Your task to perform on an android device: toggle pop-ups in chrome Image 0: 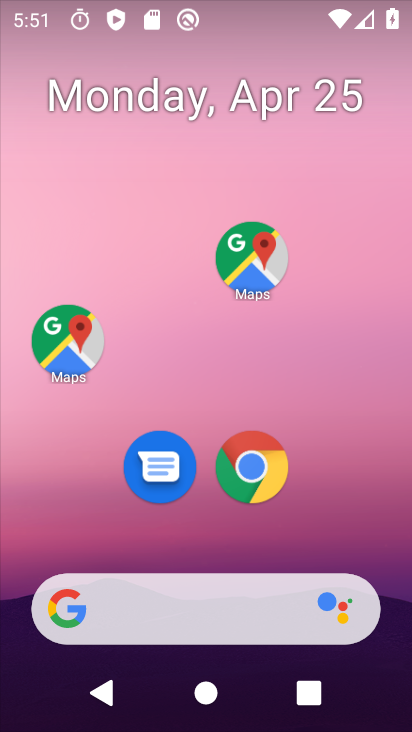
Step 0: drag from (328, 157) to (329, 5)
Your task to perform on an android device: toggle pop-ups in chrome Image 1: 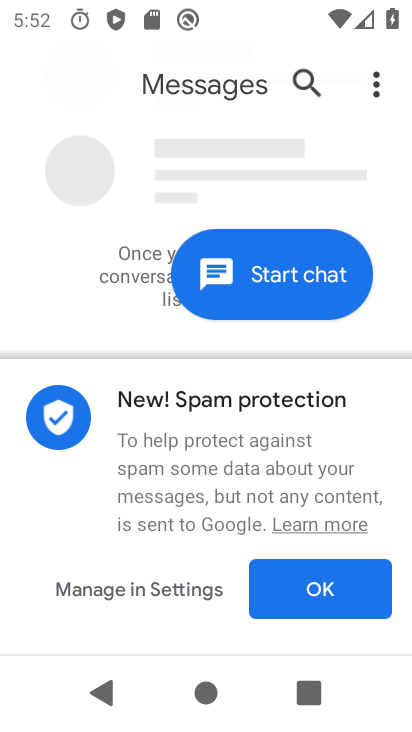
Step 1: press home button
Your task to perform on an android device: toggle pop-ups in chrome Image 2: 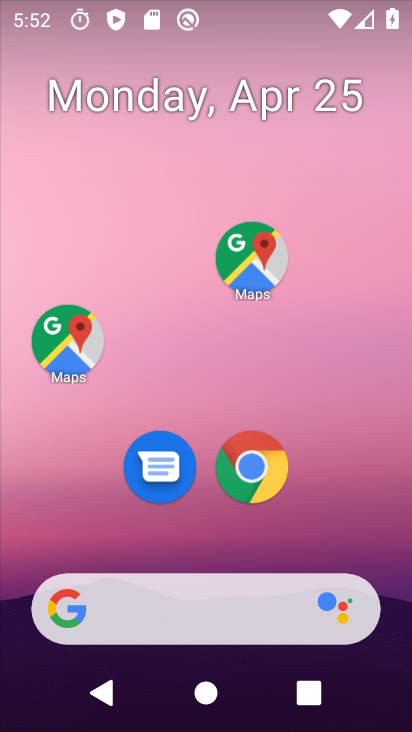
Step 2: click (242, 468)
Your task to perform on an android device: toggle pop-ups in chrome Image 3: 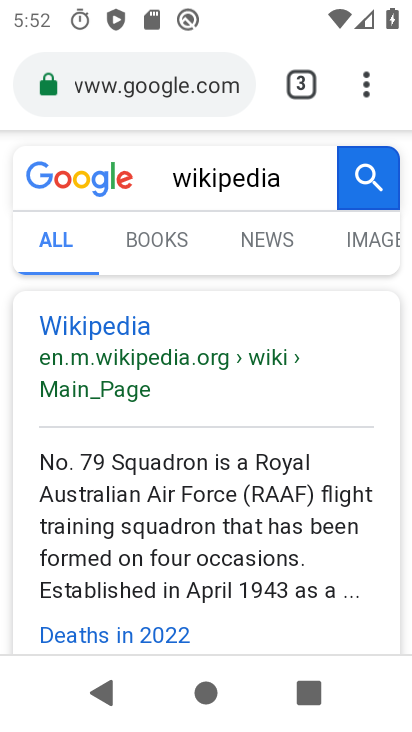
Step 3: drag from (360, 69) to (202, 526)
Your task to perform on an android device: toggle pop-ups in chrome Image 4: 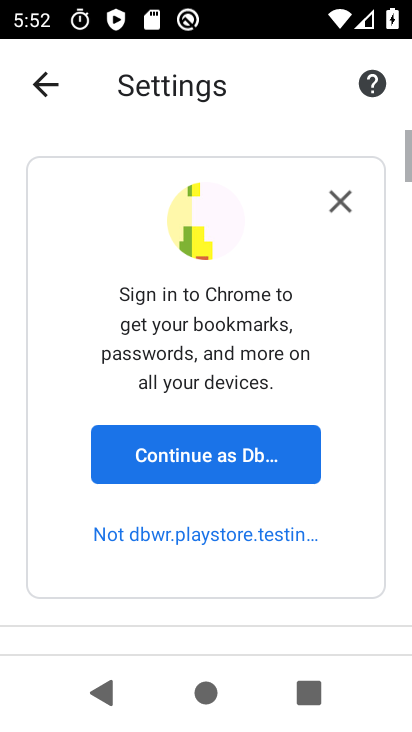
Step 4: drag from (275, 612) to (299, 0)
Your task to perform on an android device: toggle pop-ups in chrome Image 5: 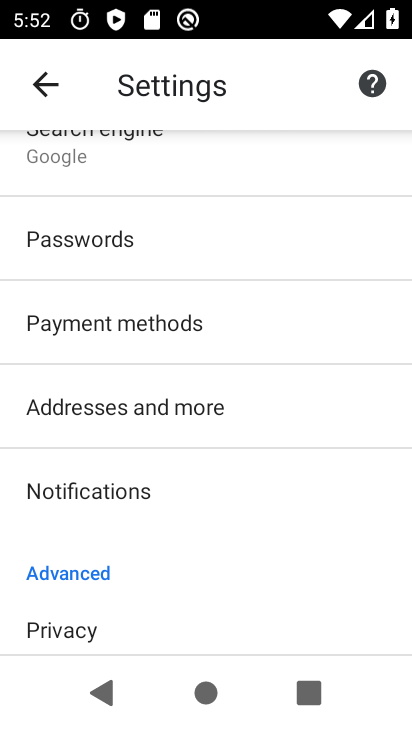
Step 5: drag from (239, 646) to (259, 129)
Your task to perform on an android device: toggle pop-ups in chrome Image 6: 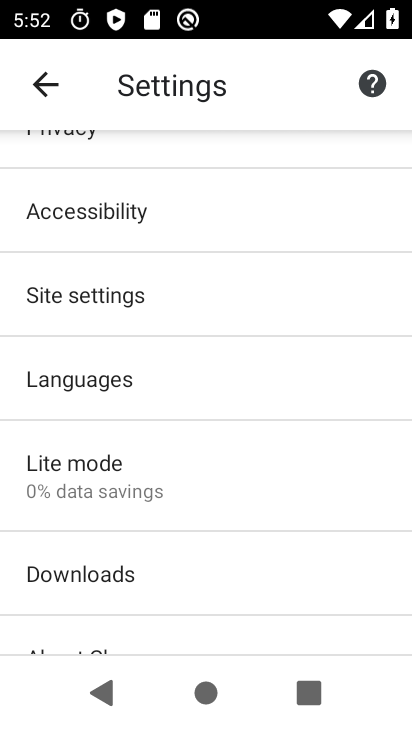
Step 6: click (162, 296)
Your task to perform on an android device: toggle pop-ups in chrome Image 7: 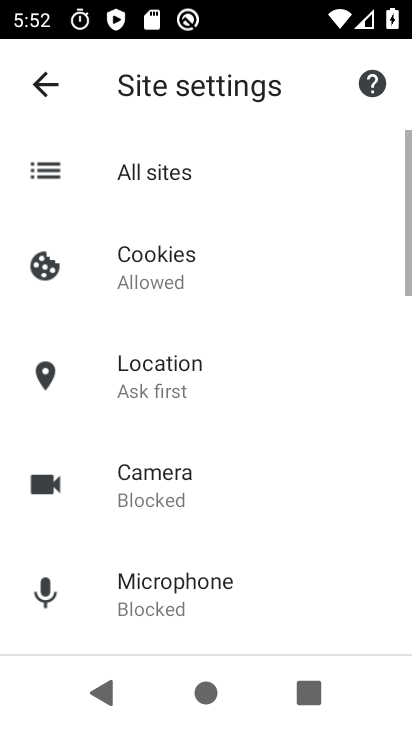
Step 7: drag from (278, 637) to (300, 233)
Your task to perform on an android device: toggle pop-ups in chrome Image 8: 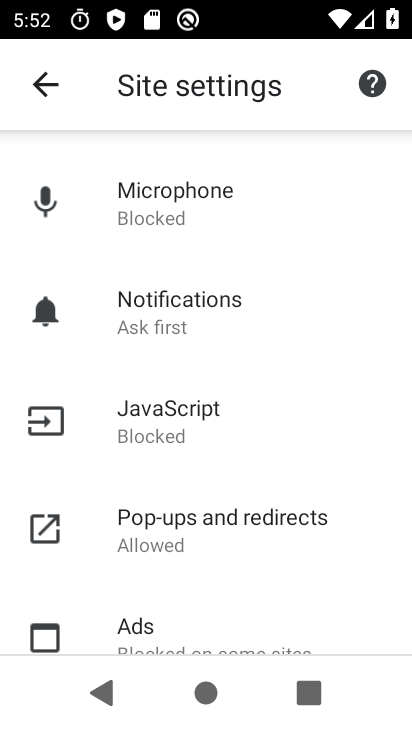
Step 8: click (256, 530)
Your task to perform on an android device: toggle pop-ups in chrome Image 9: 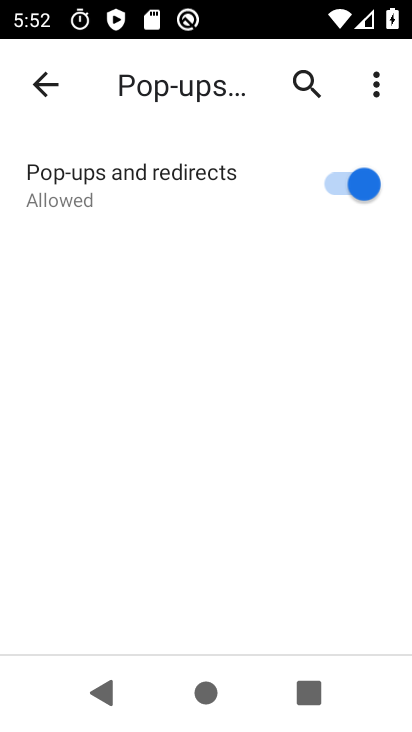
Step 9: click (333, 178)
Your task to perform on an android device: toggle pop-ups in chrome Image 10: 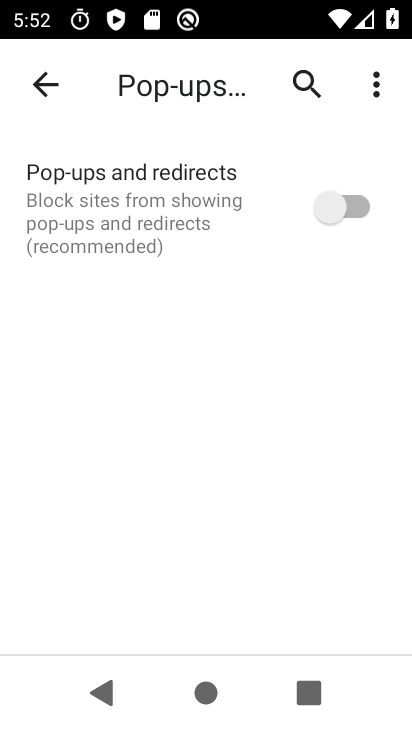
Step 10: task complete